Your task to perform on an android device: Add razer nari to the cart on bestbuy Image 0: 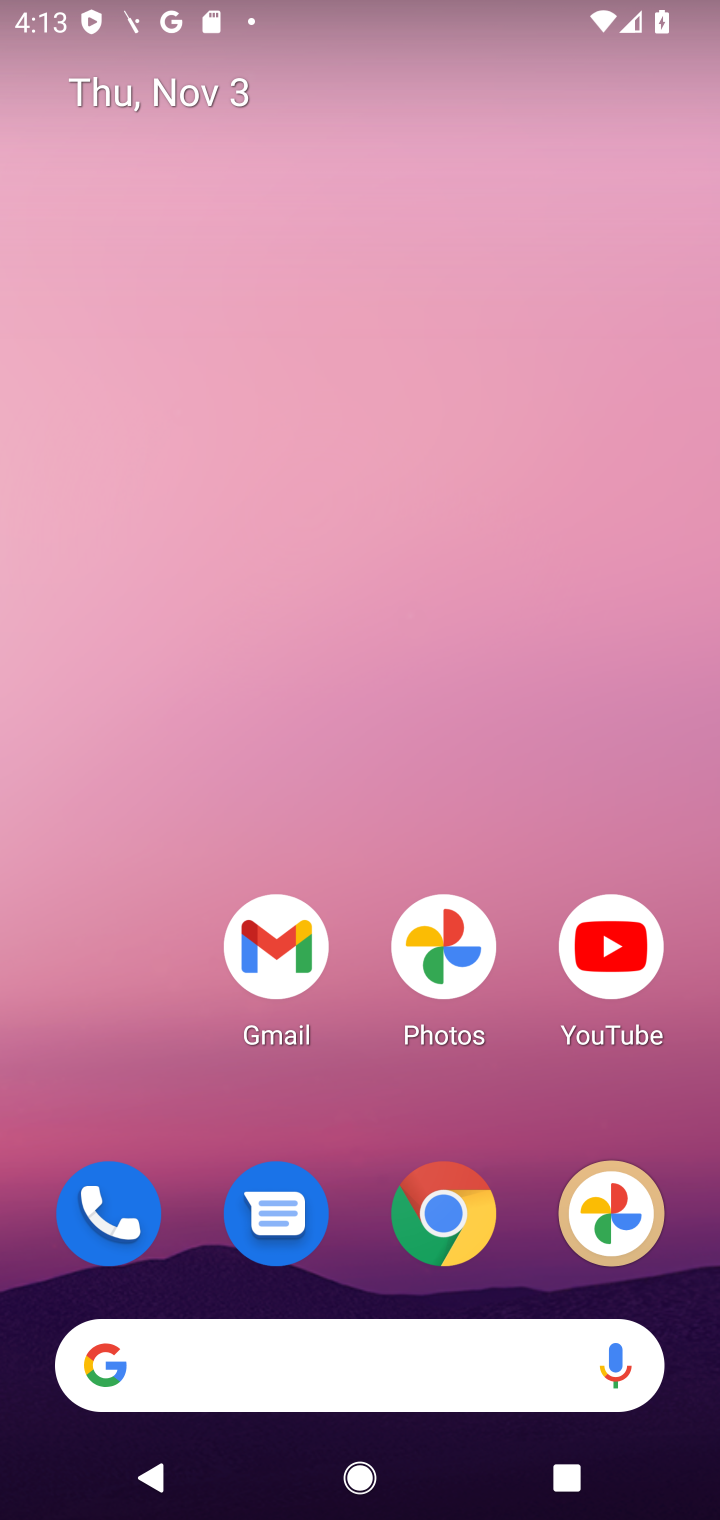
Step 0: click (455, 1218)
Your task to perform on an android device: Add razer nari to the cart on bestbuy Image 1: 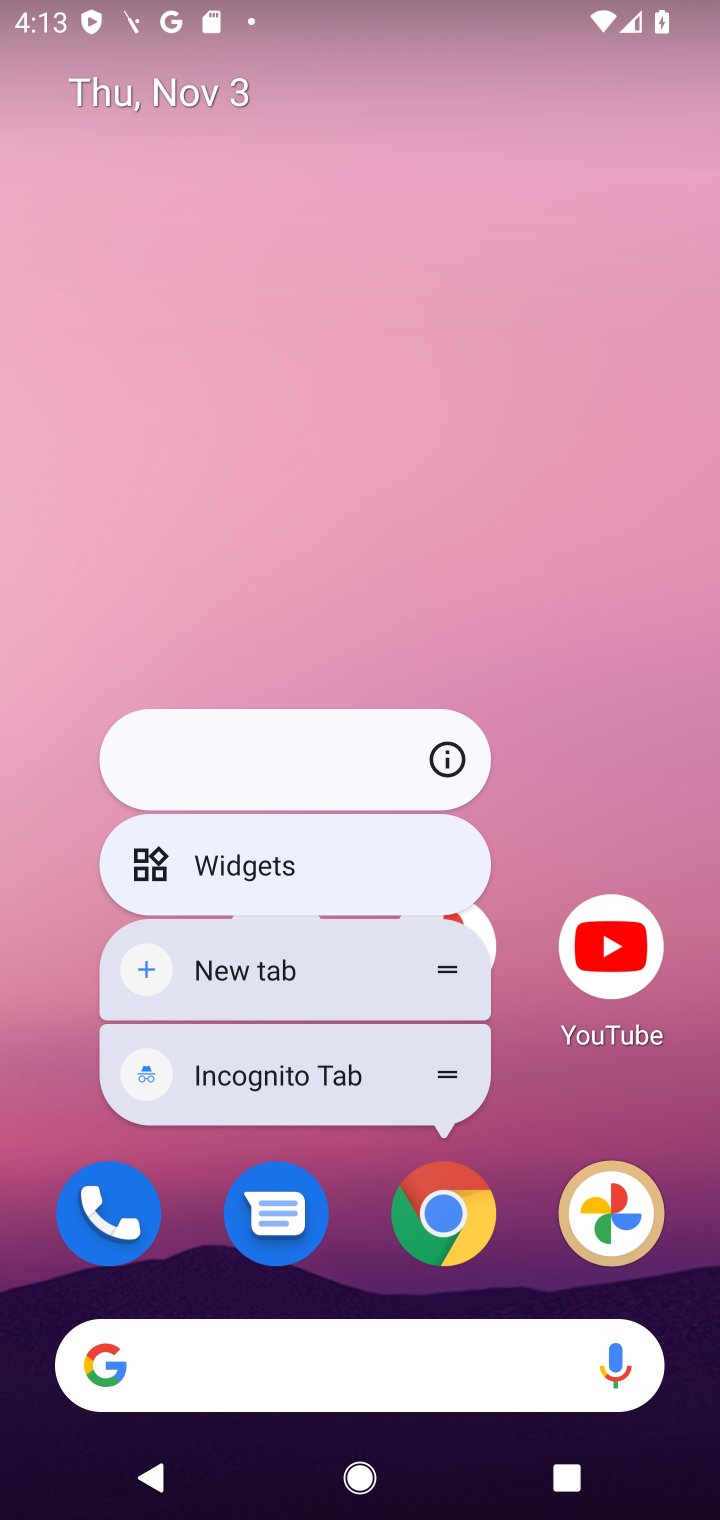
Step 1: click (455, 1218)
Your task to perform on an android device: Add razer nari to the cart on bestbuy Image 2: 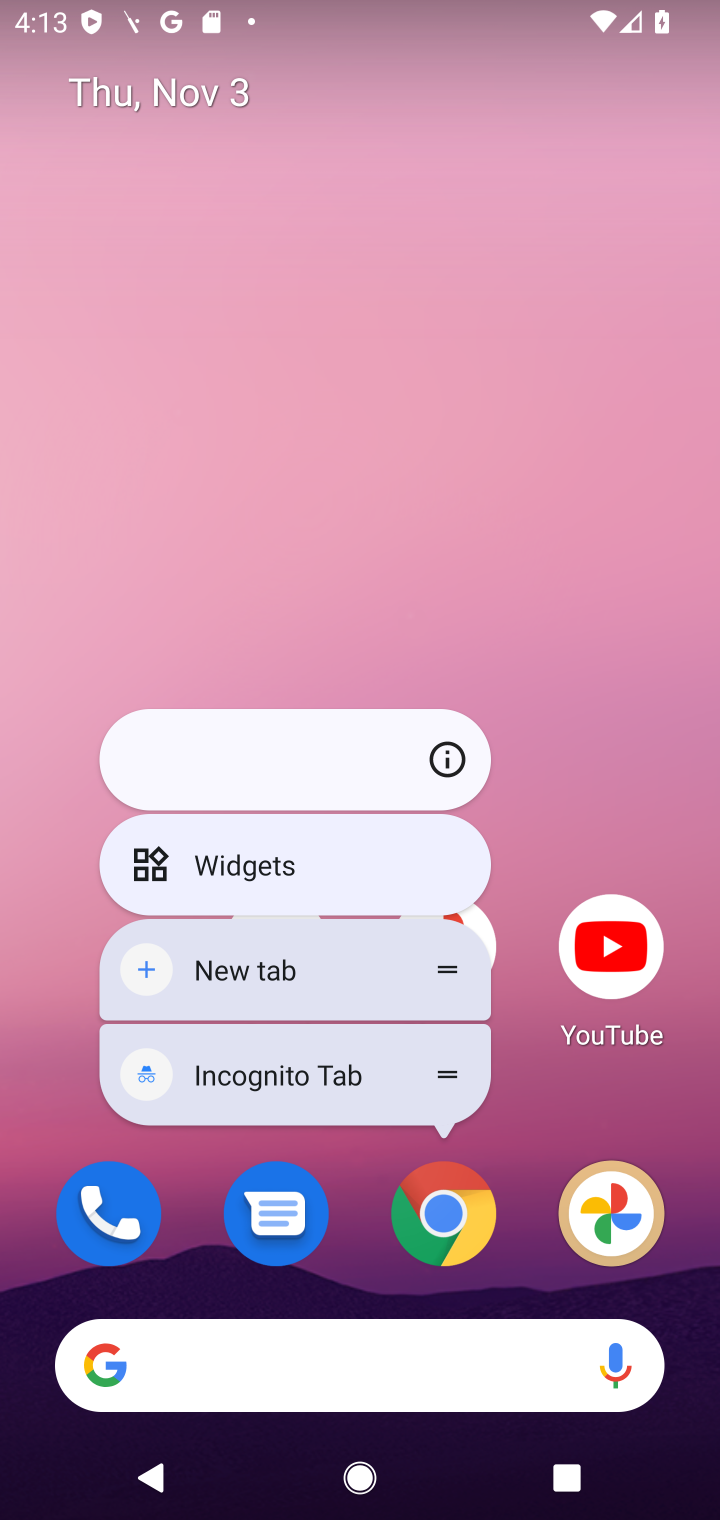
Step 2: click (468, 1199)
Your task to perform on an android device: Add razer nari to the cart on bestbuy Image 3: 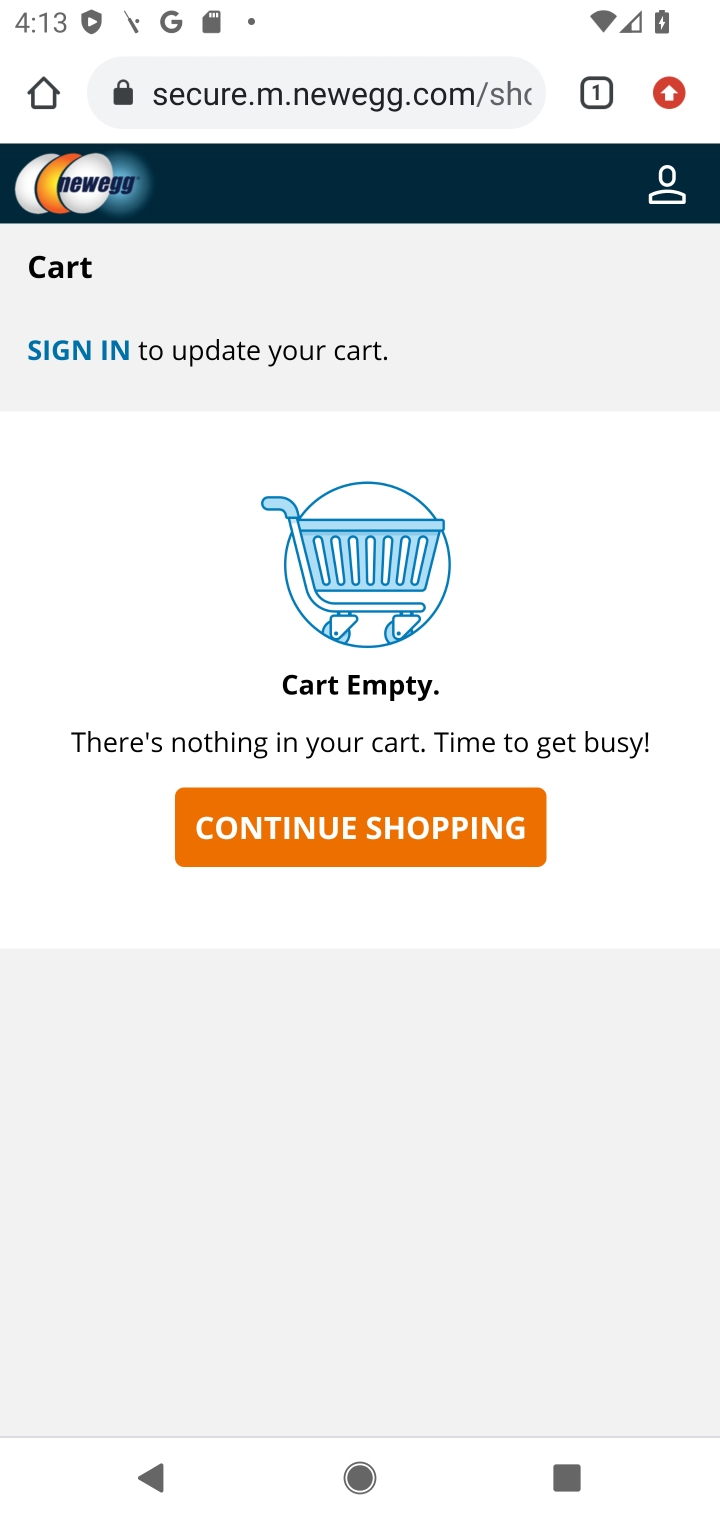
Step 3: click (318, 103)
Your task to perform on an android device: Add razer nari to the cart on bestbuy Image 4: 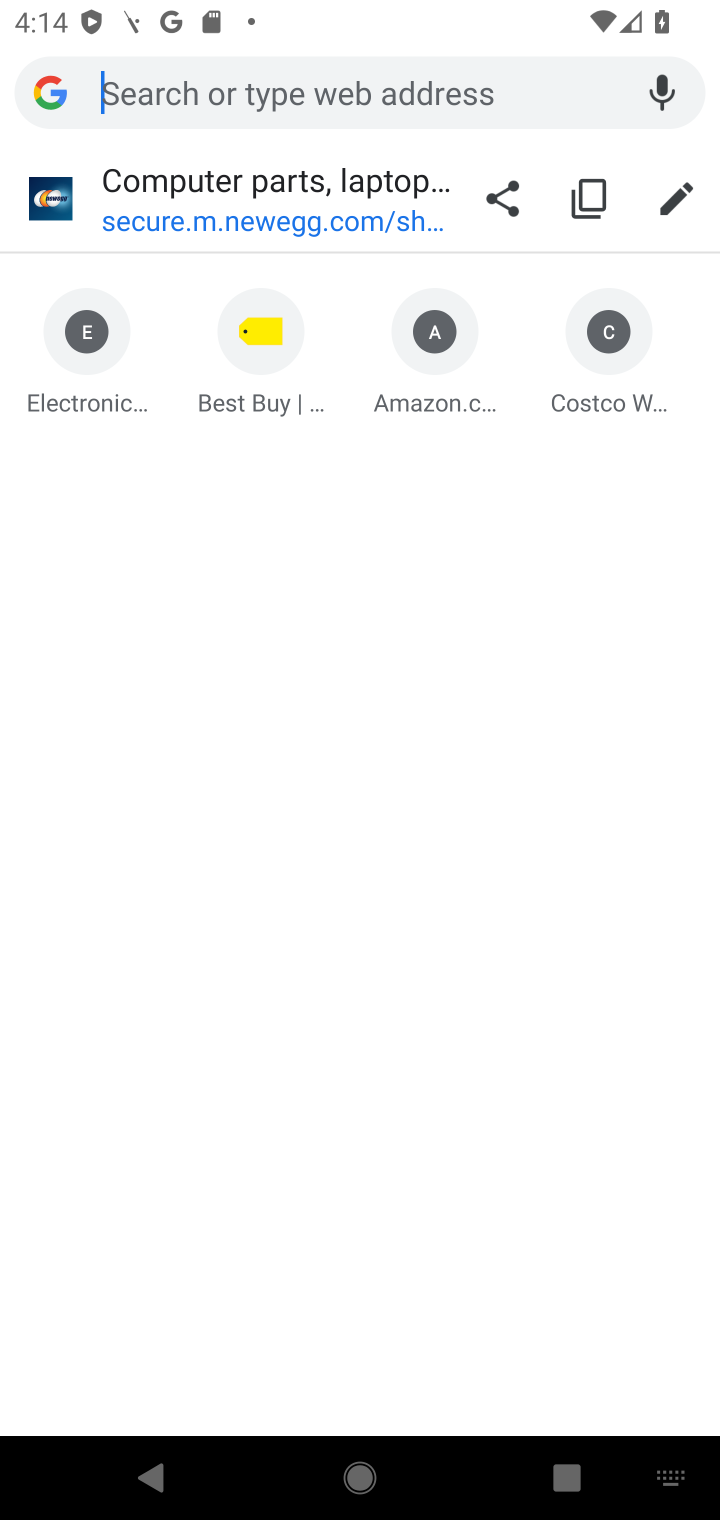
Step 4: type "bestbuy.com"
Your task to perform on an android device: Add razer nari to the cart on bestbuy Image 5: 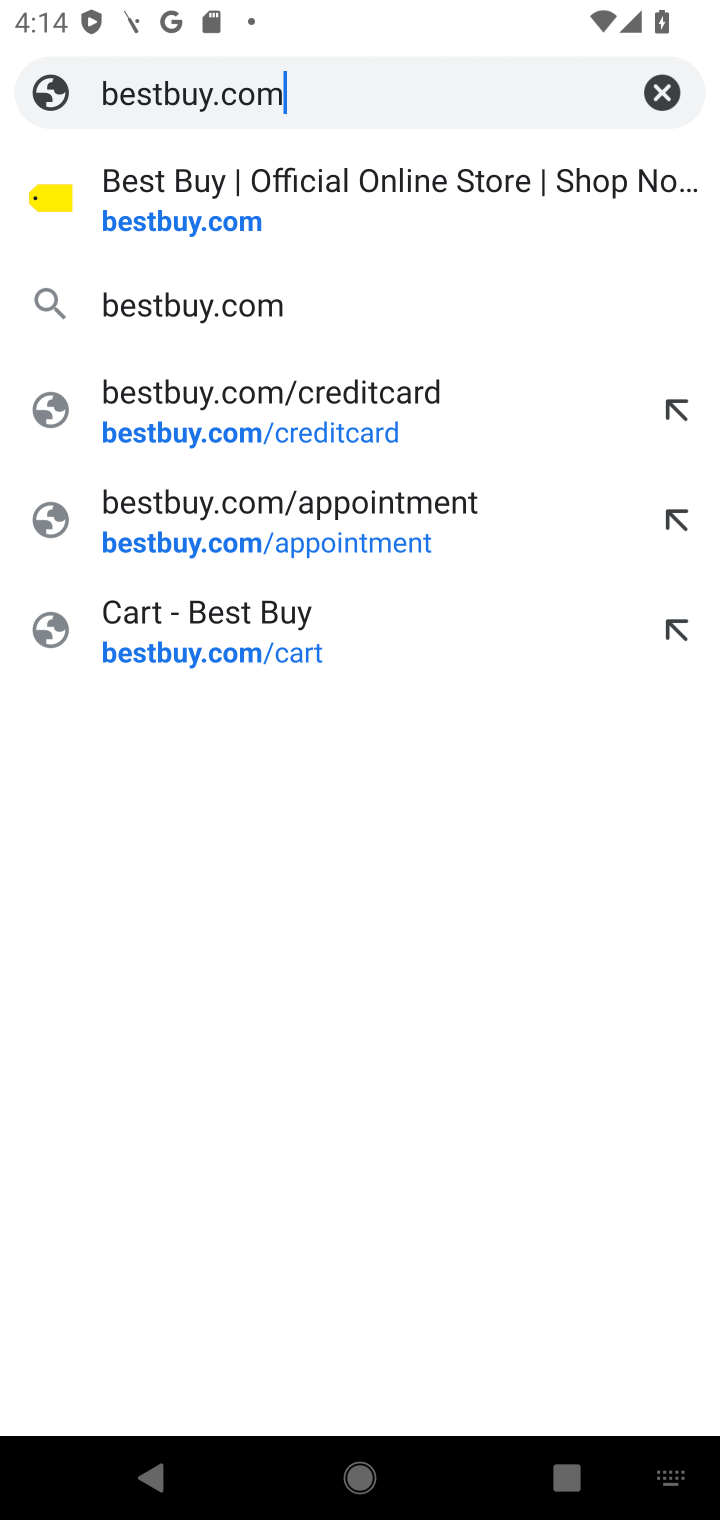
Step 5: click (212, 205)
Your task to perform on an android device: Add razer nari to the cart on bestbuy Image 6: 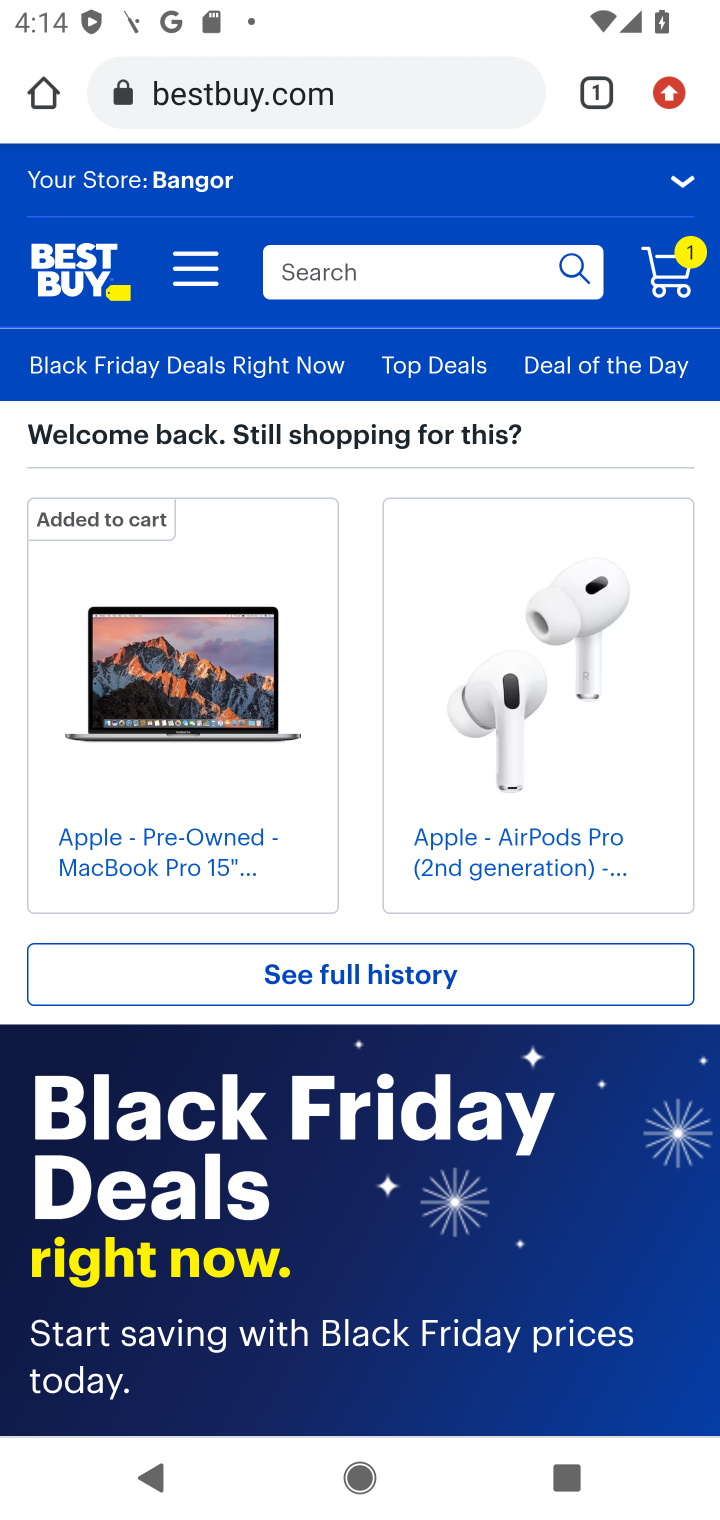
Step 6: click (383, 261)
Your task to perform on an android device: Add razer nari to the cart on bestbuy Image 7: 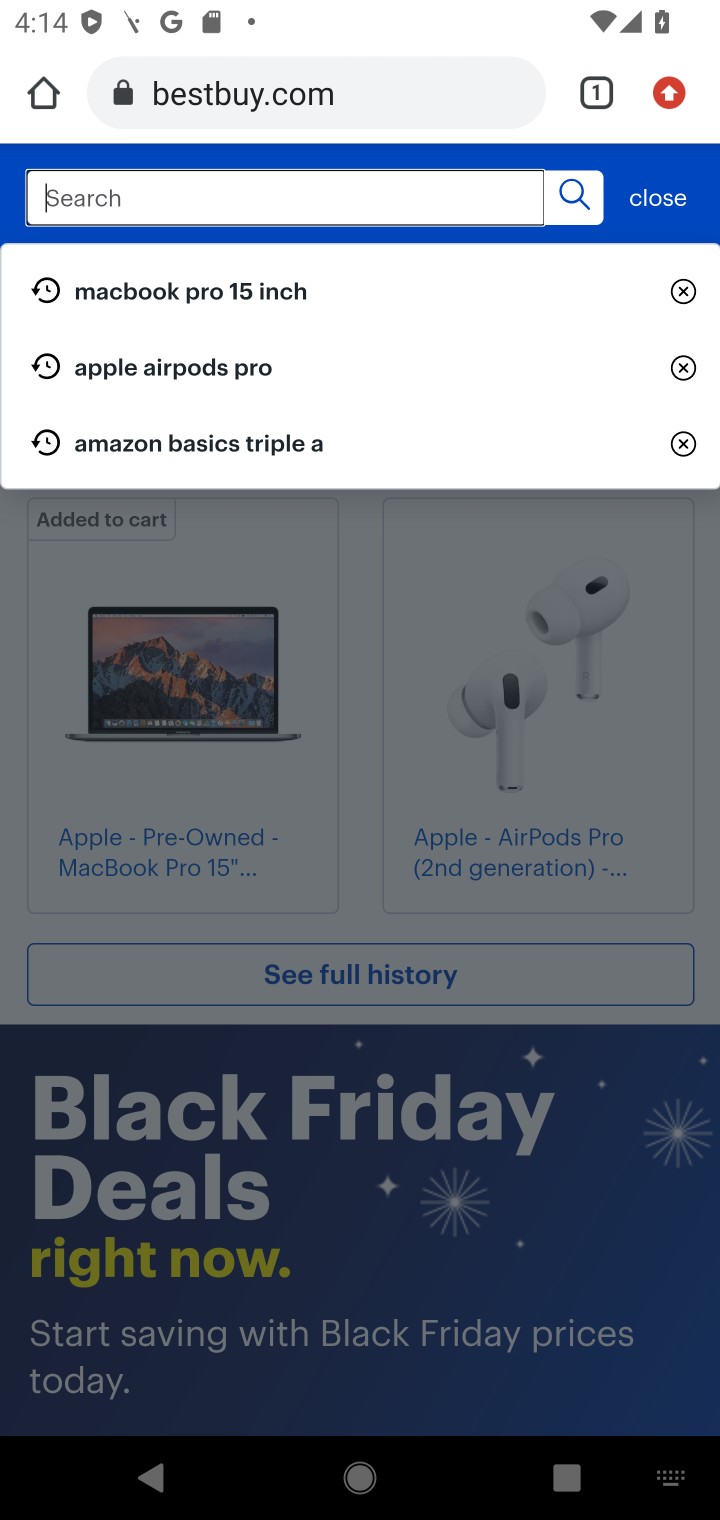
Step 7: type "razer nari"
Your task to perform on an android device: Add razer nari to the cart on bestbuy Image 8: 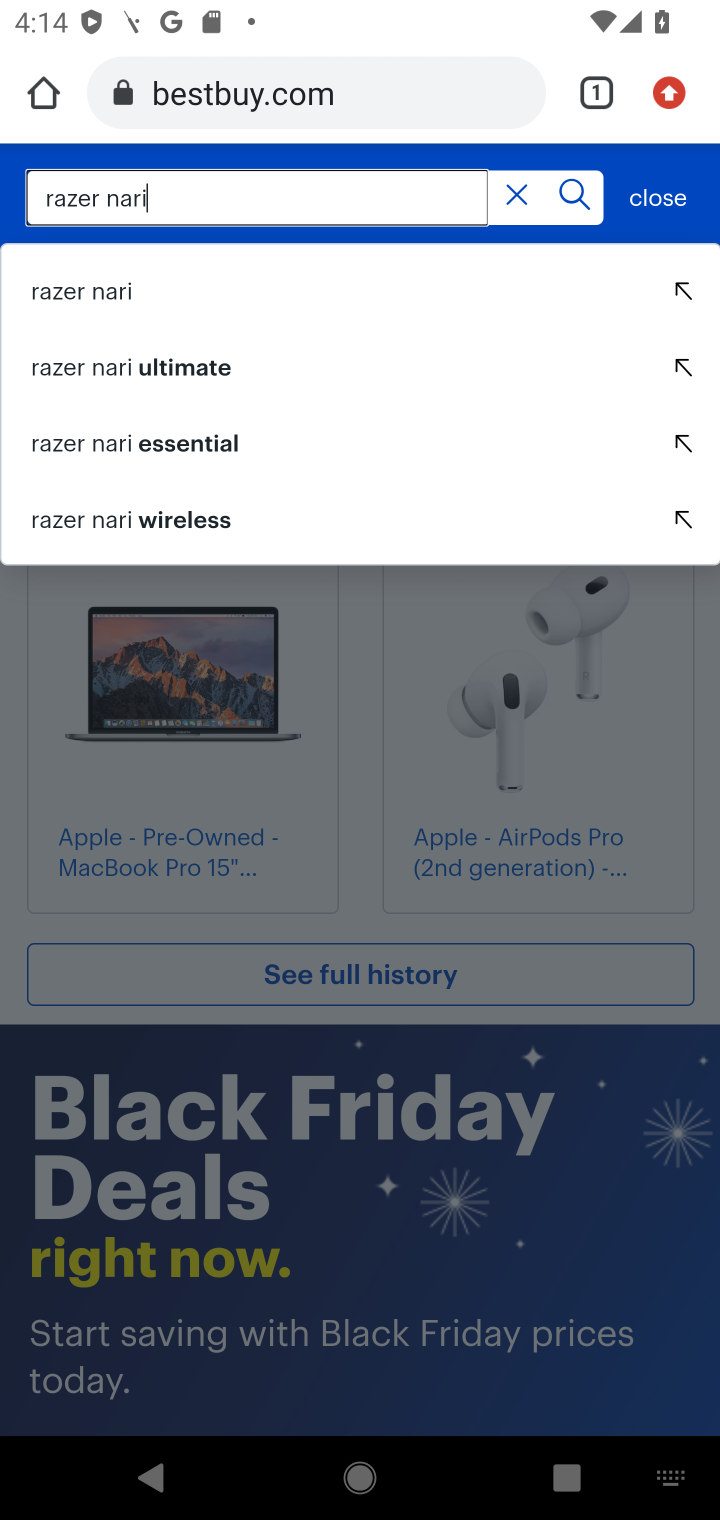
Step 8: click (108, 296)
Your task to perform on an android device: Add razer nari to the cart on bestbuy Image 9: 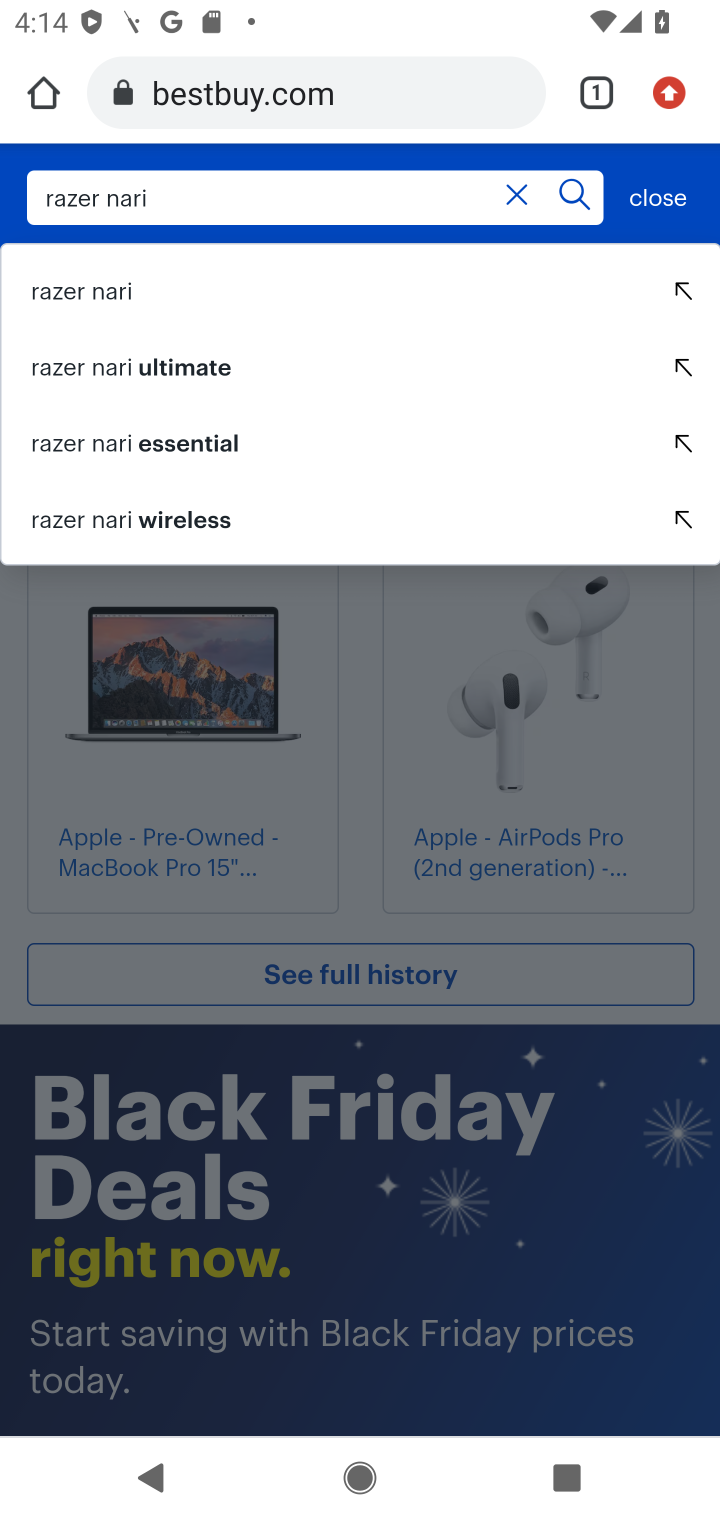
Step 9: click (66, 293)
Your task to perform on an android device: Add razer nari to the cart on bestbuy Image 10: 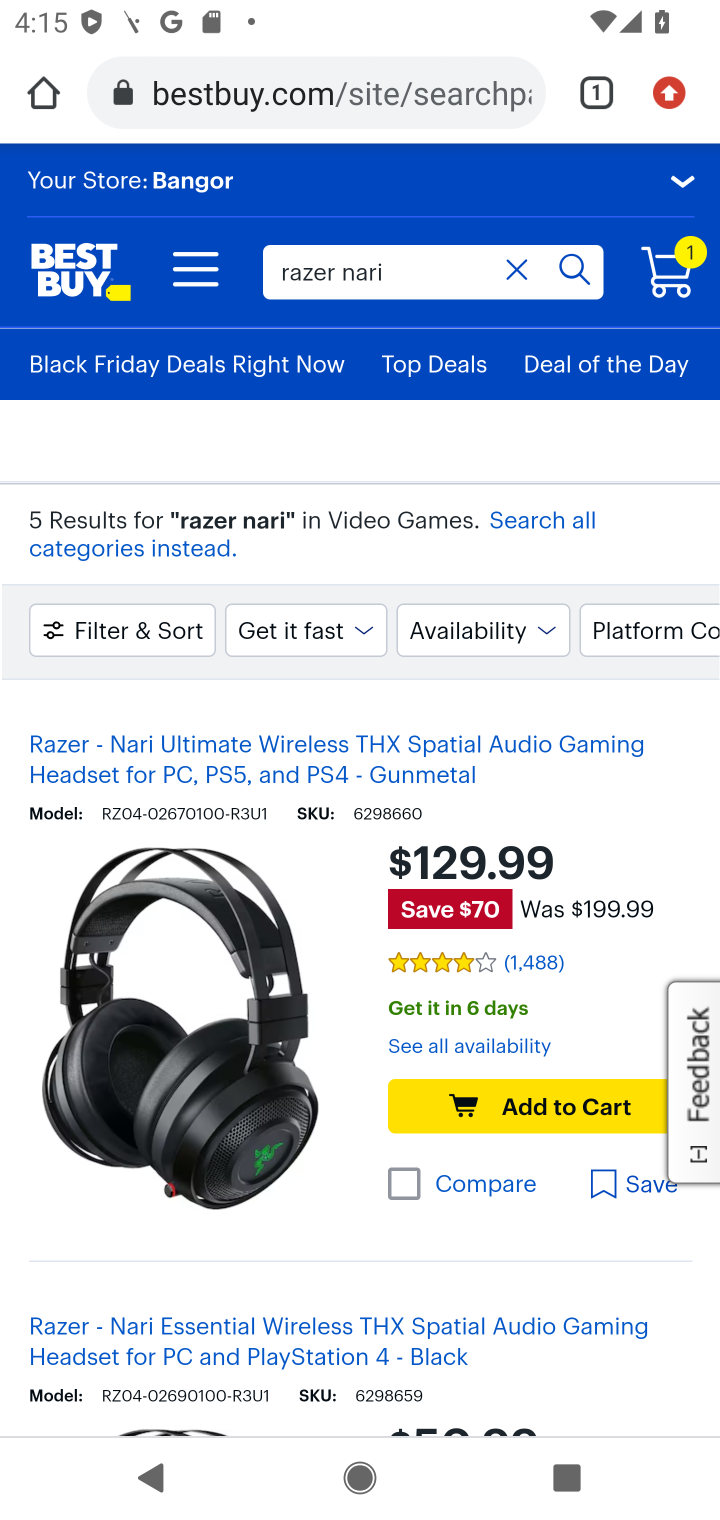
Step 10: click (262, 1021)
Your task to perform on an android device: Add razer nari to the cart on bestbuy Image 11: 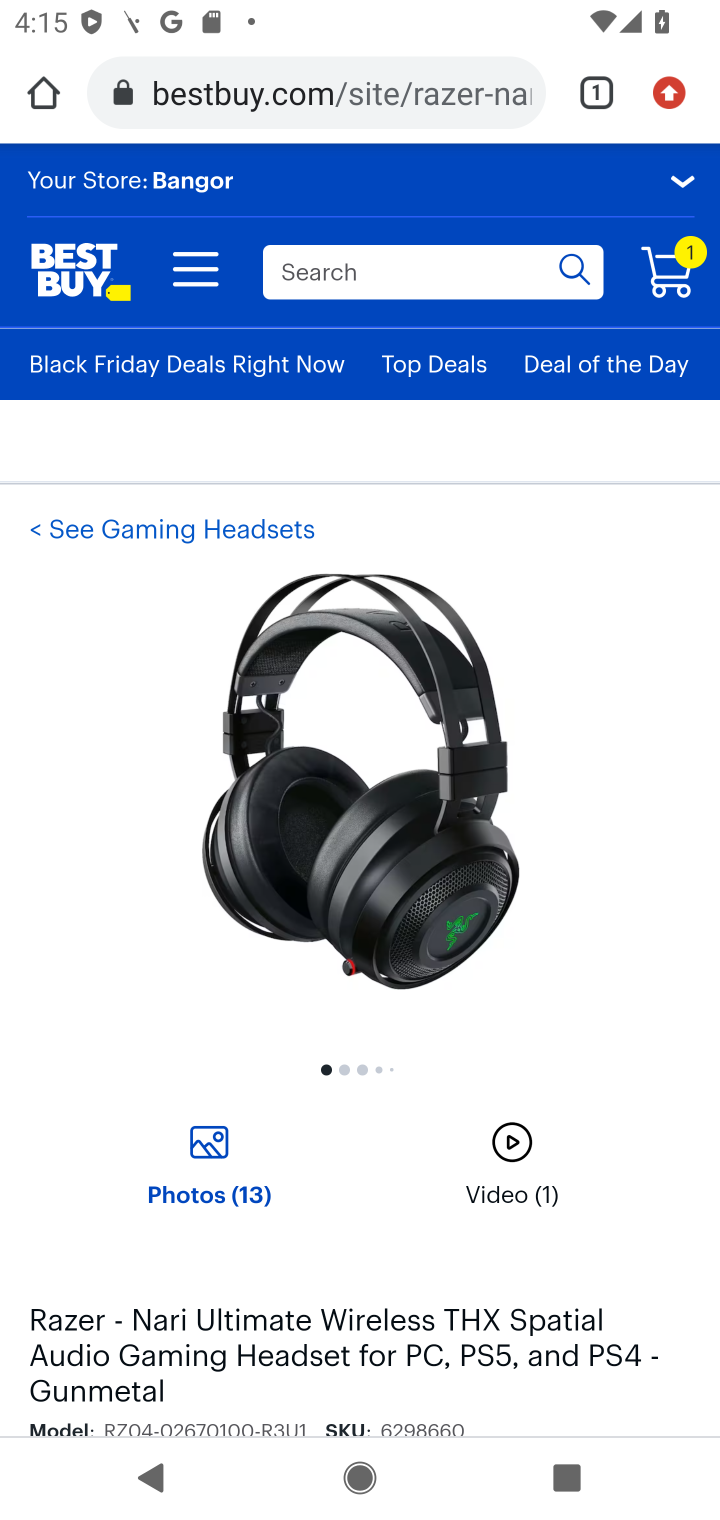
Step 11: drag from (342, 1181) to (450, 427)
Your task to perform on an android device: Add razer nari to the cart on bestbuy Image 12: 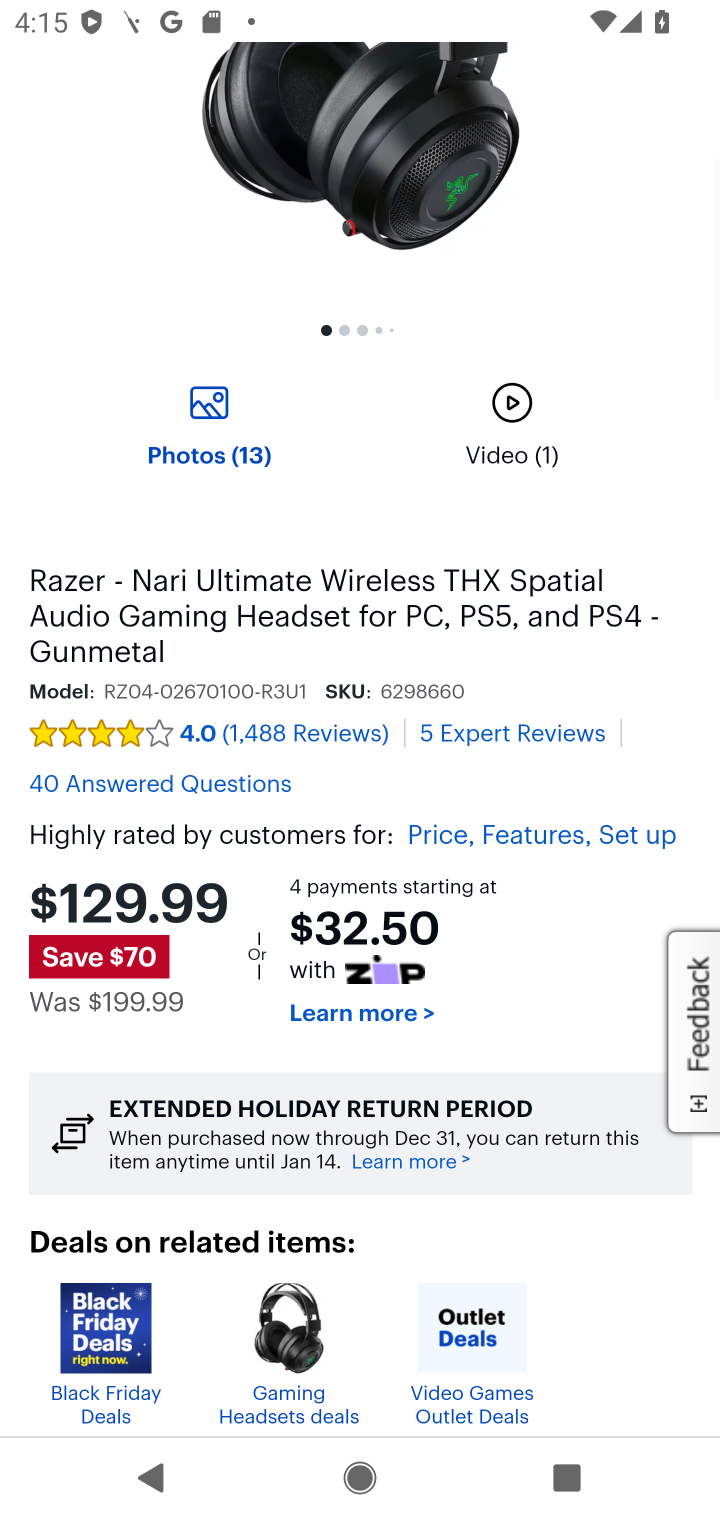
Step 12: drag from (341, 1084) to (407, 267)
Your task to perform on an android device: Add razer nari to the cart on bestbuy Image 13: 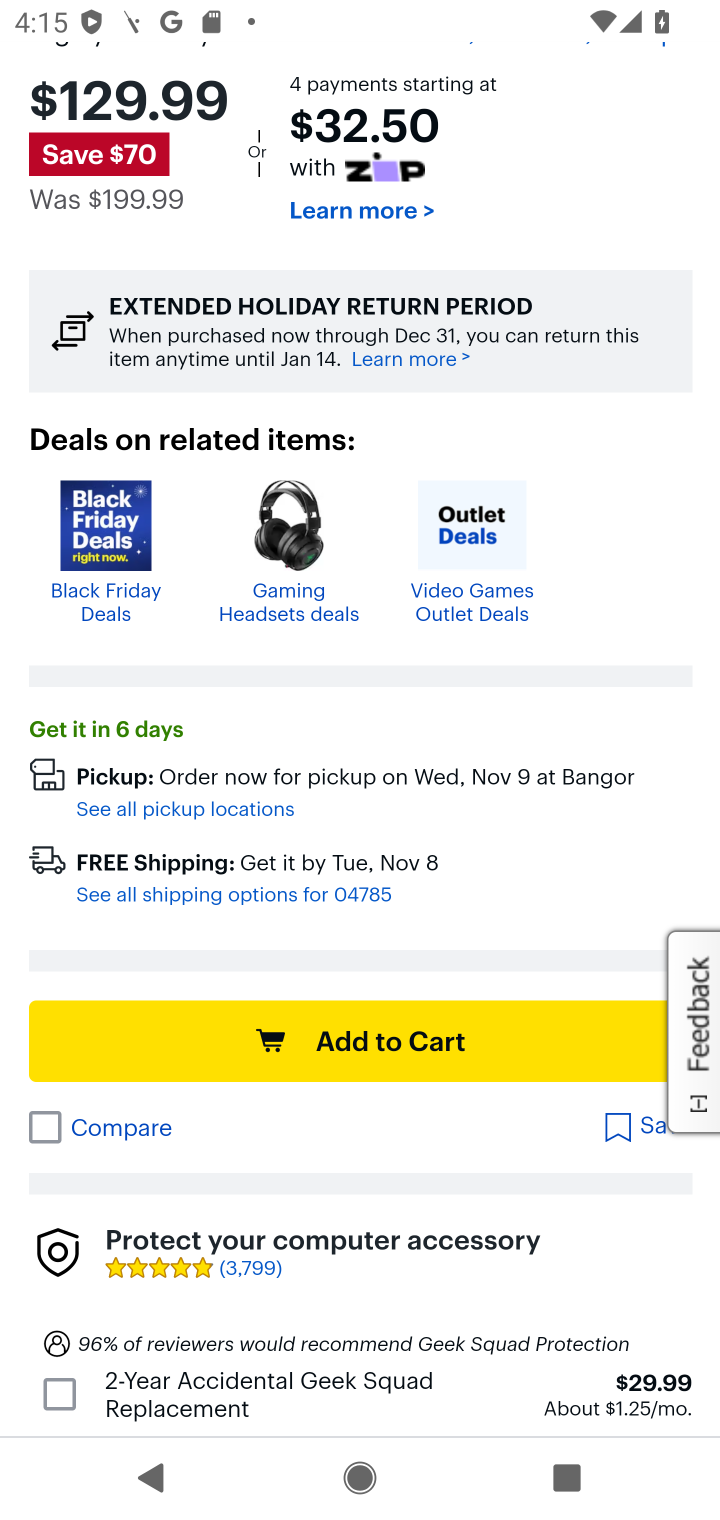
Step 13: click (365, 1043)
Your task to perform on an android device: Add razer nari to the cart on bestbuy Image 14: 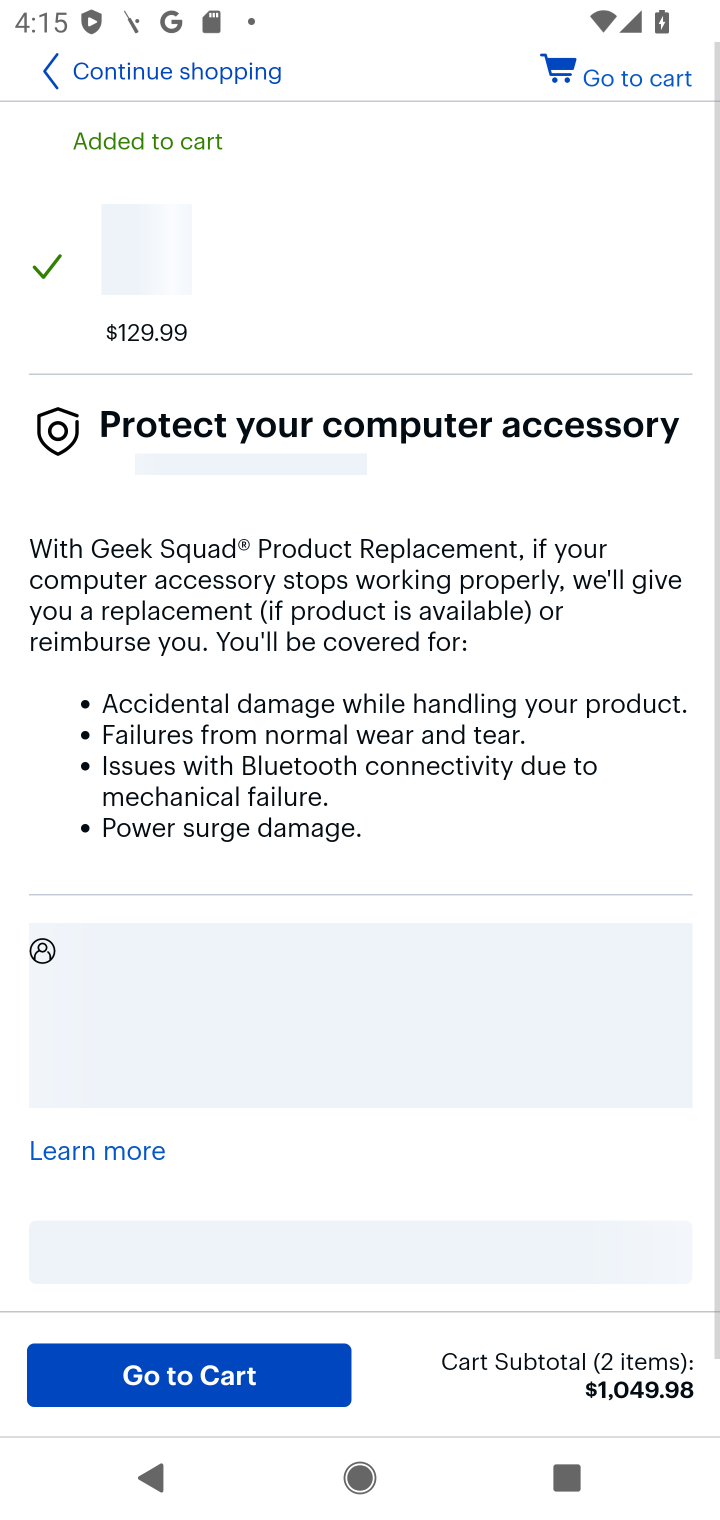
Step 14: task complete